Your task to perform on an android device: Do I have any events today? Image 0: 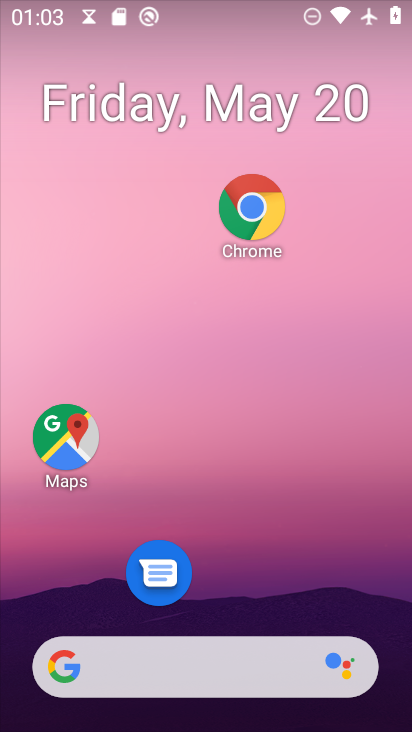
Step 0: drag from (301, 521) to (321, 8)
Your task to perform on an android device: Do I have any events today? Image 1: 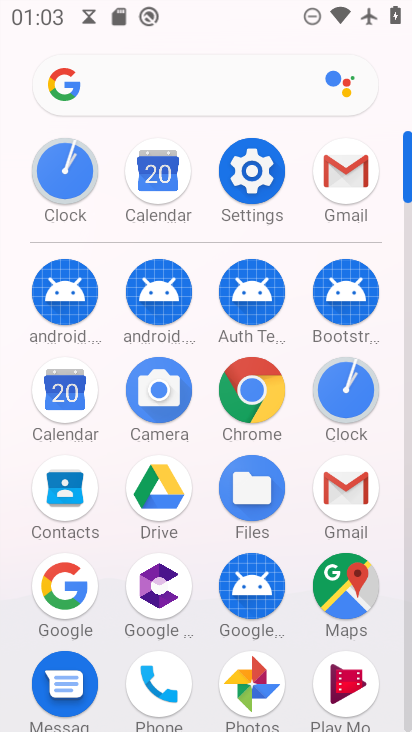
Step 1: click (154, 197)
Your task to perform on an android device: Do I have any events today? Image 2: 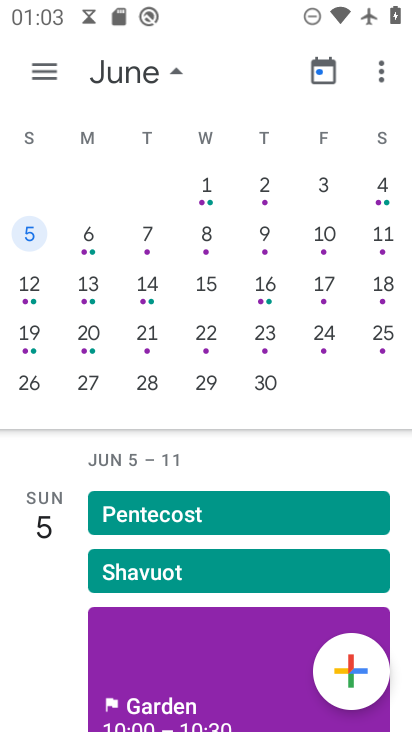
Step 2: drag from (68, 274) to (409, 355)
Your task to perform on an android device: Do I have any events today? Image 3: 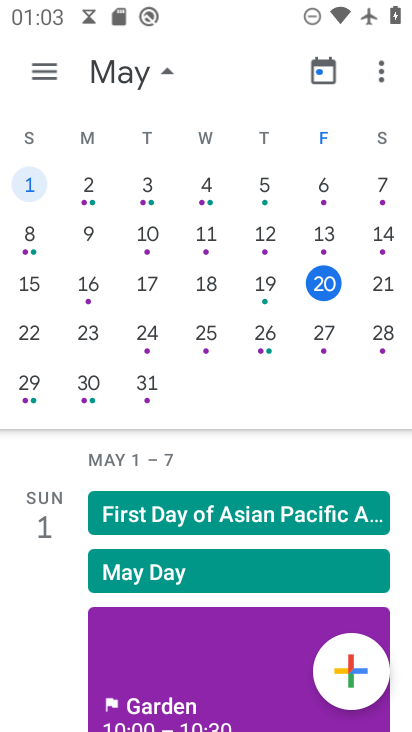
Step 3: click (326, 289)
Your task to perform on an android device: Do I have any events today? Image 4: 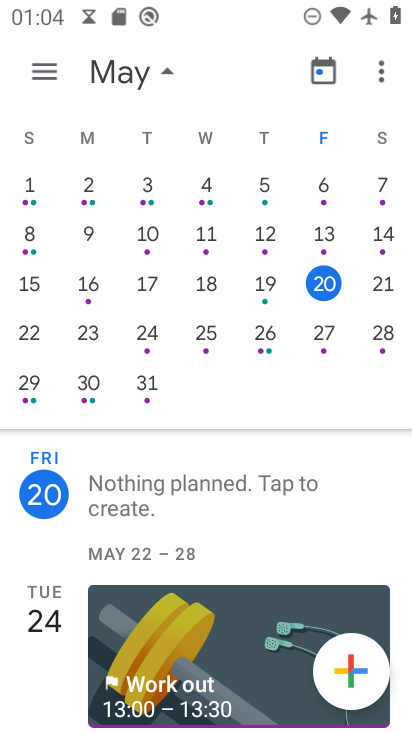
Step 4: task complete